Your task to perform on an android device: What is the recent news? Image 0: 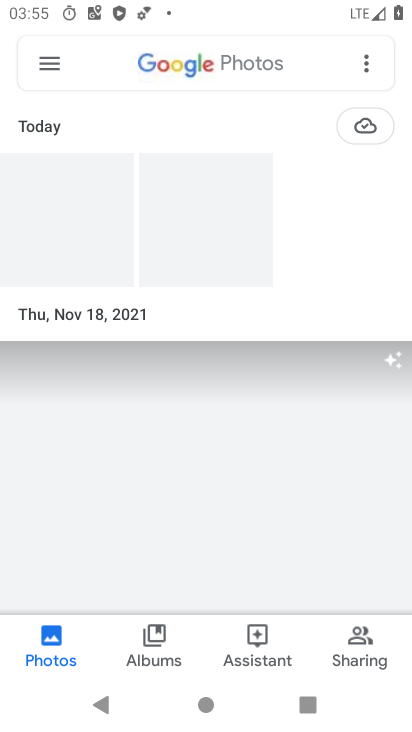
Step 0: press home button
Your task to perform on an android device: What is the recent news? Image 1: 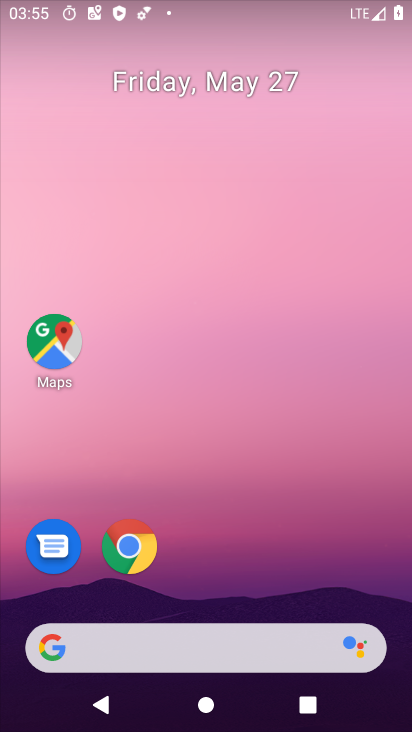
Step 1: task complete